Your task to perform on an android device: turn off location Image 0: 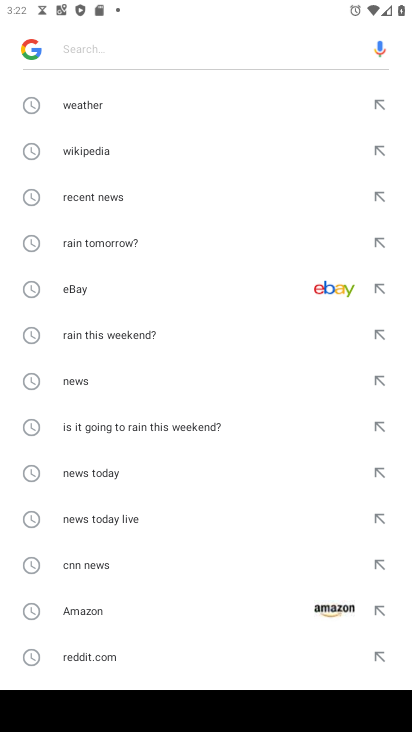
Step 0: press home button
Your task to perform on an android device: turn off location Image 1: 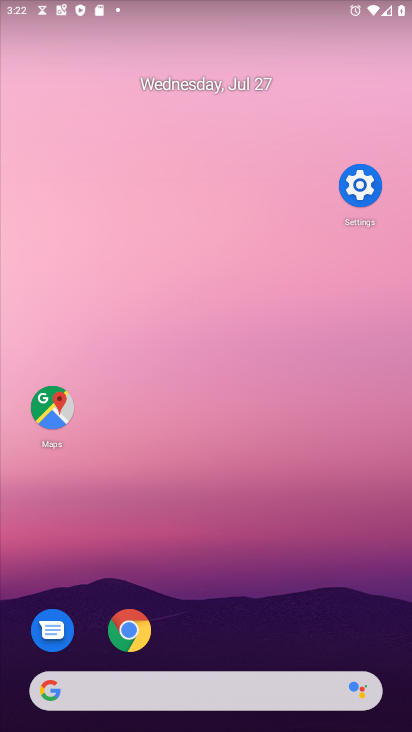
Step 1: press home button
Your task to perform on an android device: turn off location Image 2: 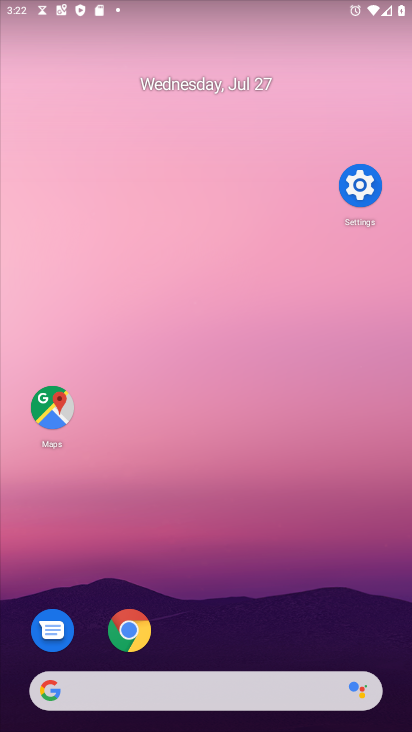
Step 2: press home button
Your task to perform on an android device: turn off location Image 3: 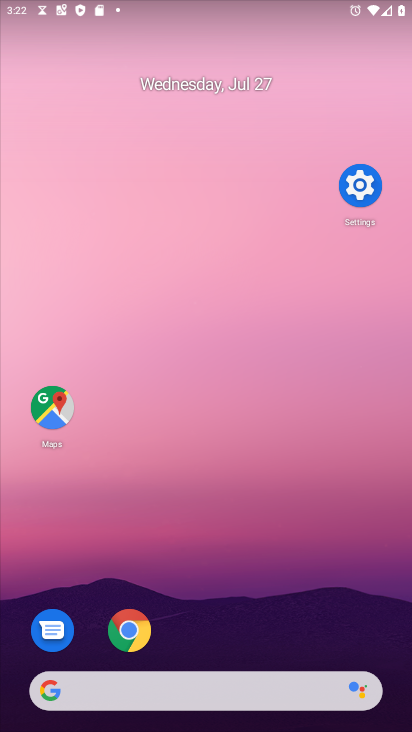
Step 3: drag from (255, 626) to (190, 87)
Your task to perform on an android device: turn off location Image 4: 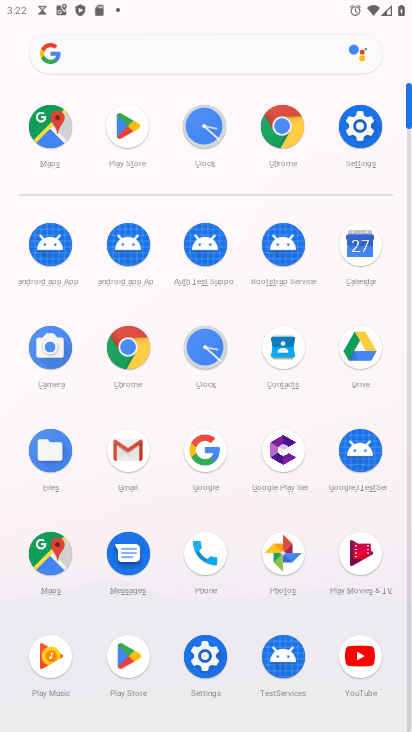
Step 4: click (360, 130)
Your task to perform on an android device: turn off location Image 5: 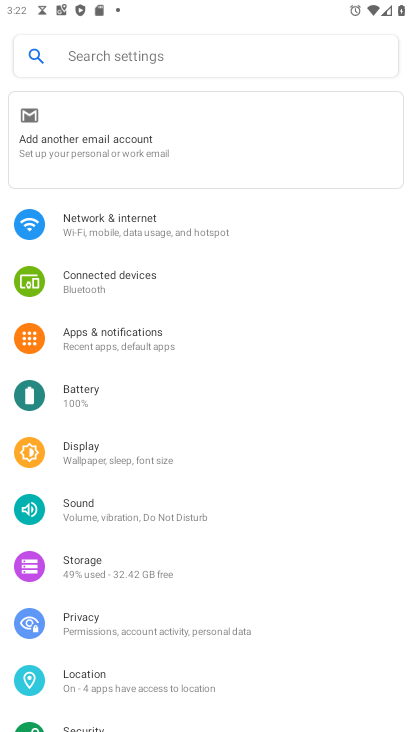
Step 5: click (97, 668)
Your task to perform on an android device: turn off location Image 6: 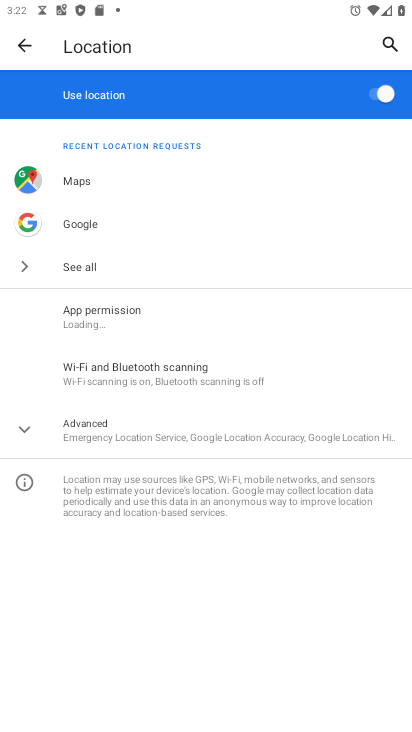
Step 6: click (386, 97)
Your task to perform on an android device: turn off location Image 7: 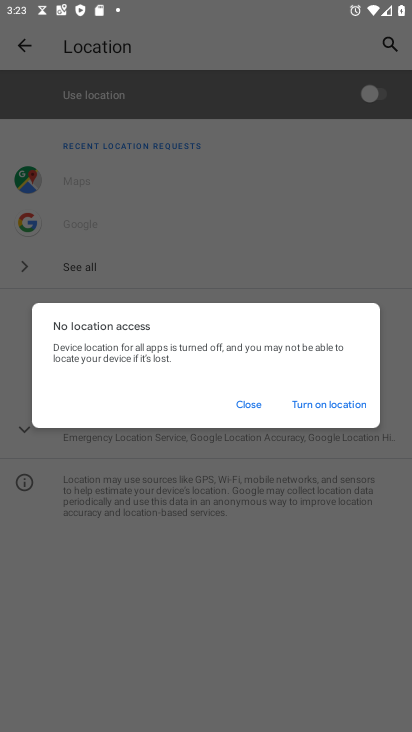
Step 7: task complete